Your task to perform on an android device: turn on the 24-hour format for clock Image 0: 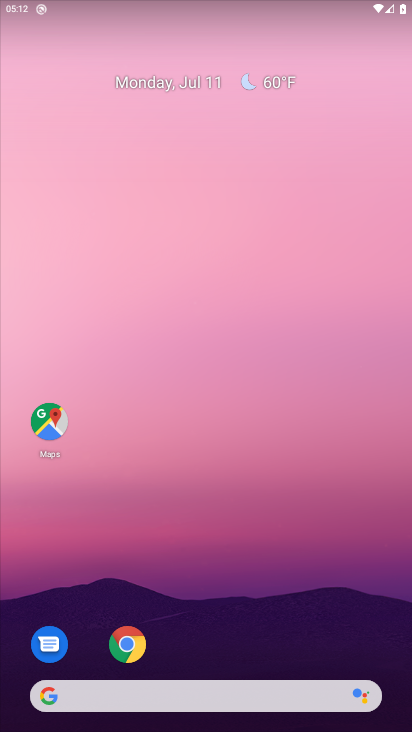
Step 0: drag from (169, 673) to (172, 310)
Your task to perform on an android device: turn on the 24-hour format for clock Image 1: 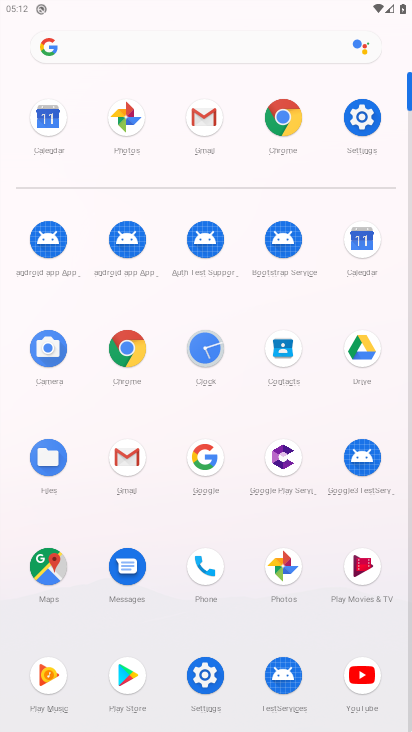
Step 1: click (207, 347)
Your task to perform on an android device: turn on the 24-hour format for clock Image 2: 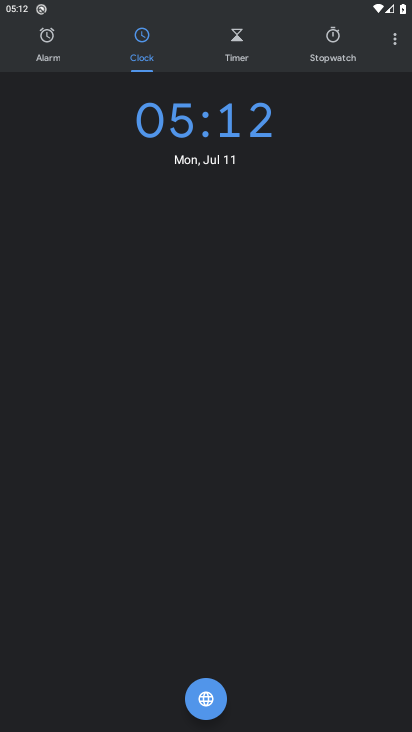
Step 2: click (395, 41)
Your task to perform on an android device: turn on the 24-hour format for clock Image 3: 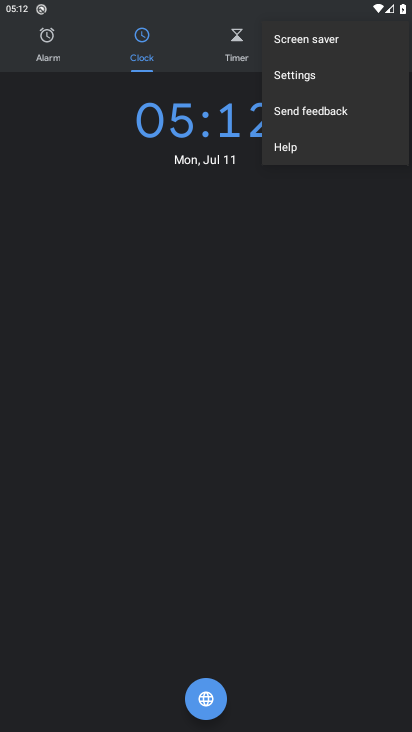
Step 3: click (307, 69)
Your task to perform on an android device: turn on the 24-hour format for clock Image 4: 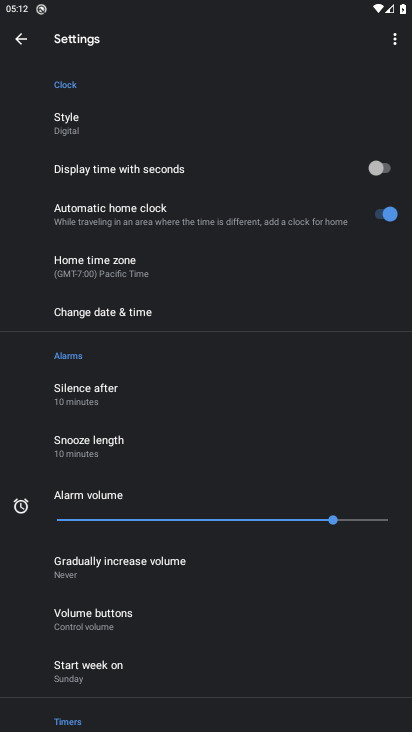
Step 4: drag from (114, 730) to (115, 466)
Your task to perform on an android device: turn on the 24-hour format for clock Image 5: 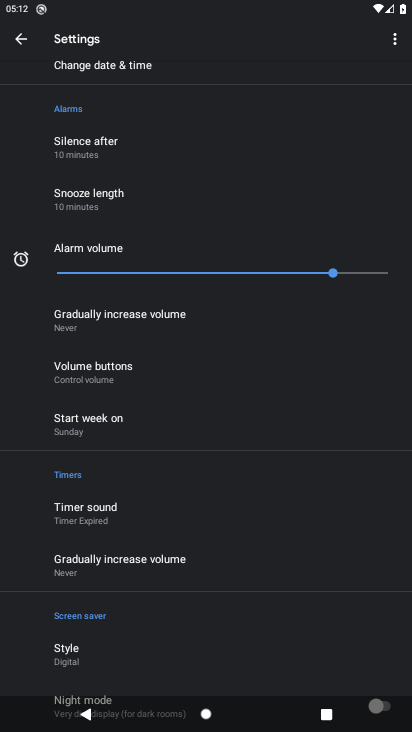
Step 5: drag from (70, 653) to (68, 395)
Your task to perform on an android device: turn on the 24-hour format for clock Image 6: 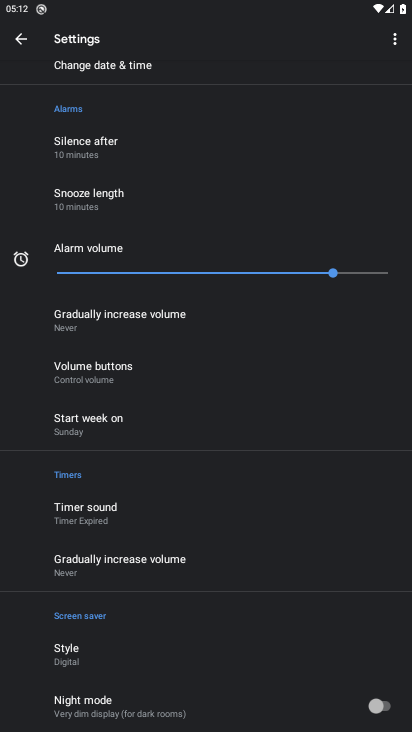
Step 6: drag from (97, 144) to (142, 530)
Your task to perform on an android device: turn on the 24-hour format for clock Image 7: 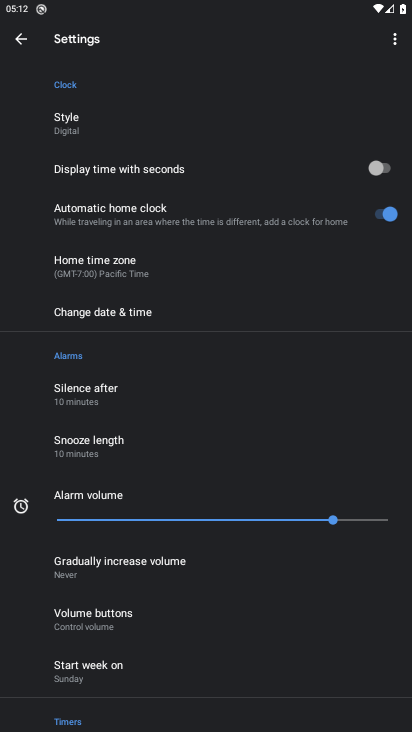
Step 7: click (141, 309)
Your task to perform on an android device: turn on the 24-hour format for clock Image 8: 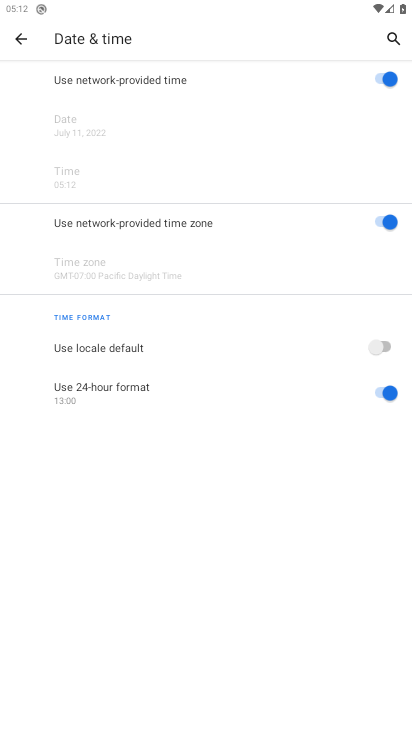
Step 8: task complete